Your task to perform on an android device: change notification settings in the gmail app Image 0: 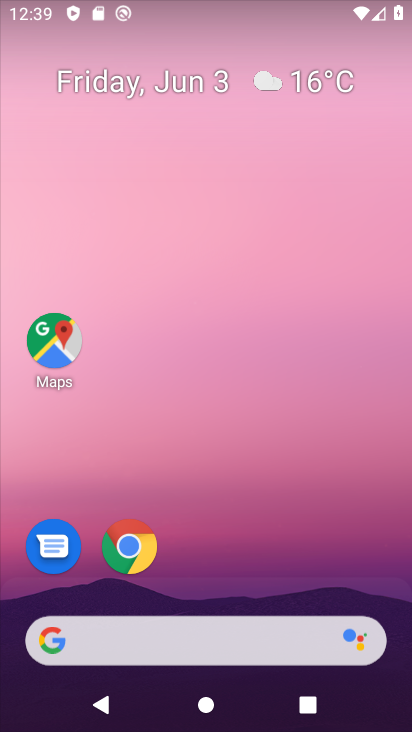
Step 0: drag from (226, 503) to (292, 192)
Your task to perform on an android device: change notification settings in the gmail app Image 1: 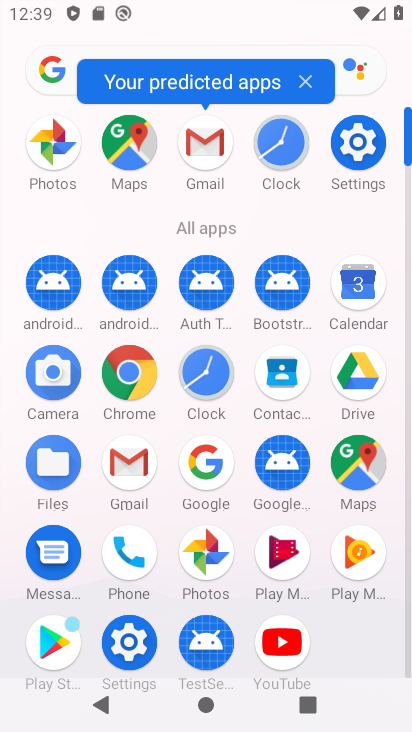
Step 1: click (127, 490)
Your task to perform on an android device: change notification settings in the gmail app Image 2: 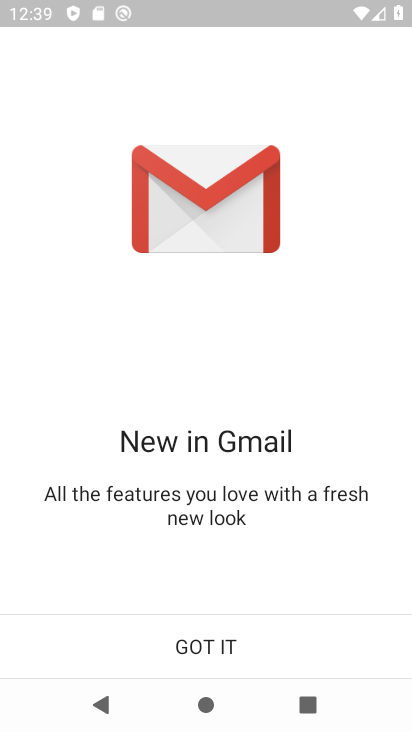
Step 2: click (220, 648)
Your task to perform on an android device: change notification settings in the gmail app Image 3: 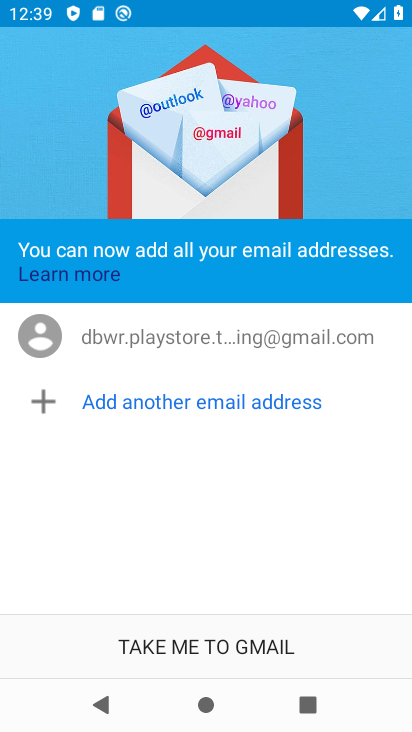
Step 3: click (272, 657)
Your task to perform on an android device: change notification settings in the gmail app Image 4: 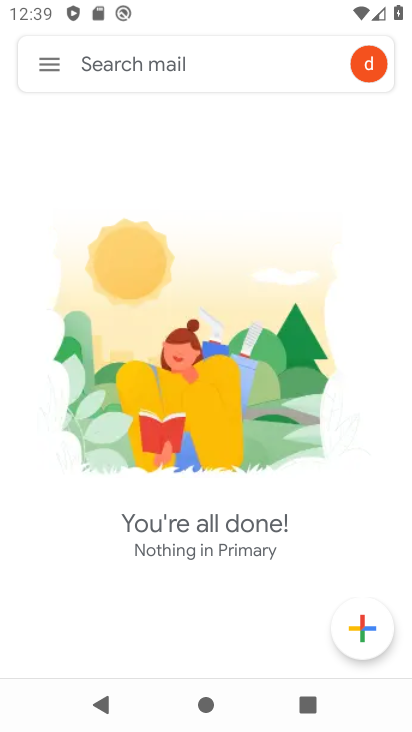
Step 4: click (51, 80)
Your task to perform on an android device: change notification settings in the gmail app Image 5: 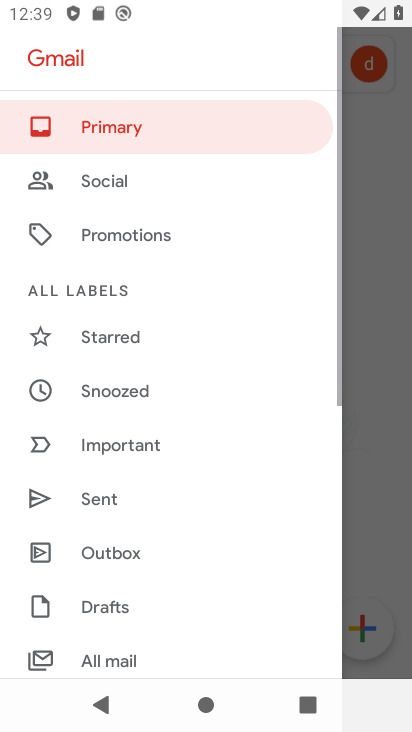
Step 5: drag from (125, 575) to (198, 138)
Your task to perform on an android device: change notification settings in the gmail app Image 6: 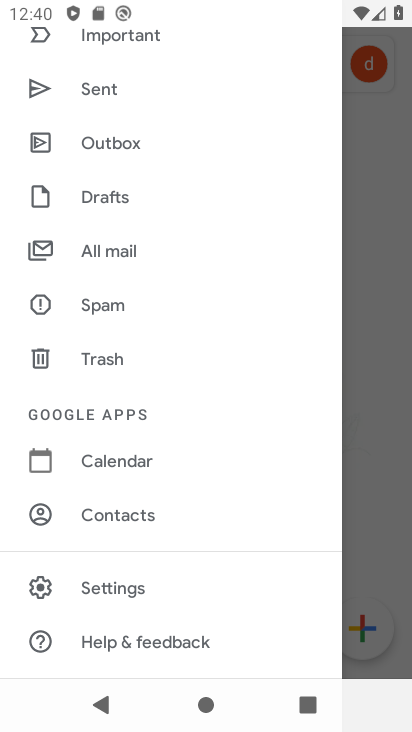
Step 6: click (146, 602)
Your task to perform on an android device: change notification settings in the gmail app Image 7: 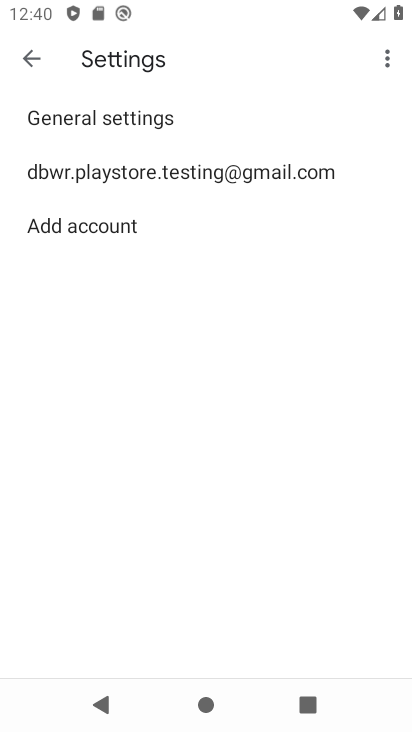
Step 7: click (268, 182)
Your task to perform on an android device: change notification settings in the gmail app Image 8: 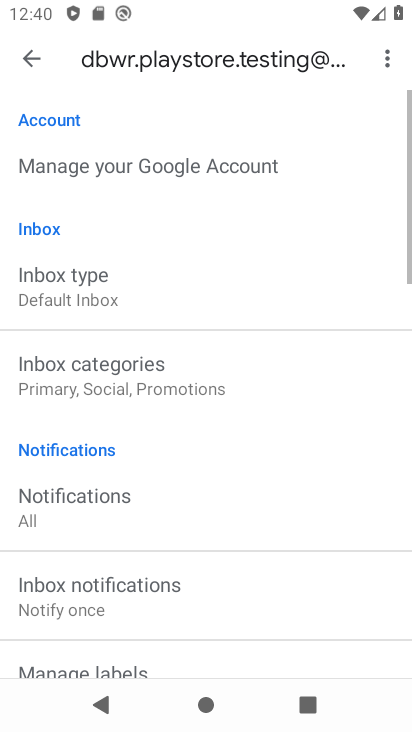
Step 8: drag from (202, 576) to (312, 166)
Your task to perform on an android device: change notification settings in the gmail app Image 9: 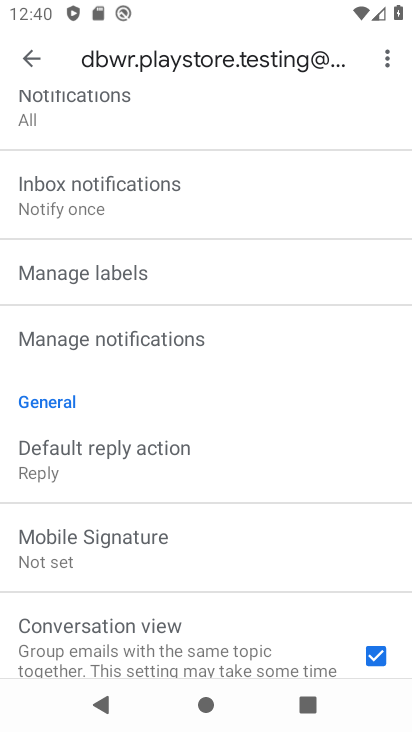
Step 9: click (213, 354)
Your task to perform on an android device: change notification settings in the gmail app Image 10: 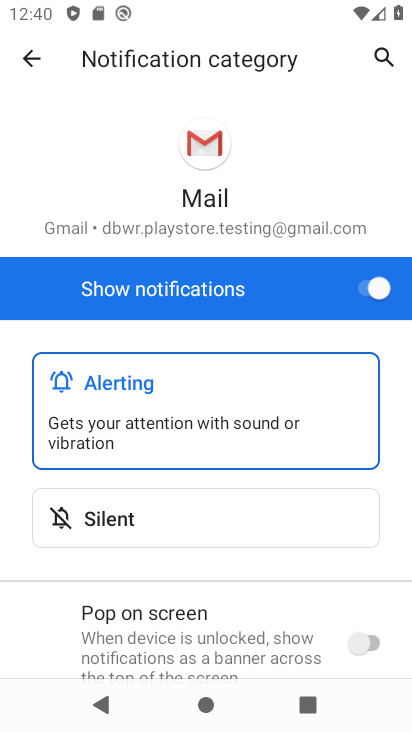
Step 10: drag from (225, 604) to (329, 280)
Your task to perform on an android device: change notification settings in the gmail app Image 11: 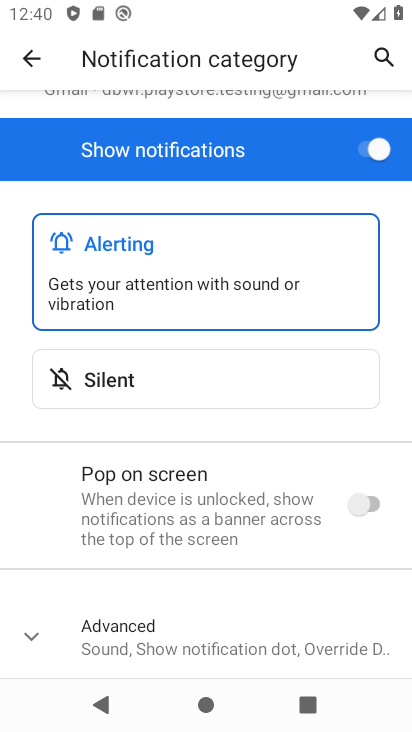
Step 11: click (176, 395)
Your task to perform on an android device: change notification settings in the gmail app Image 12: 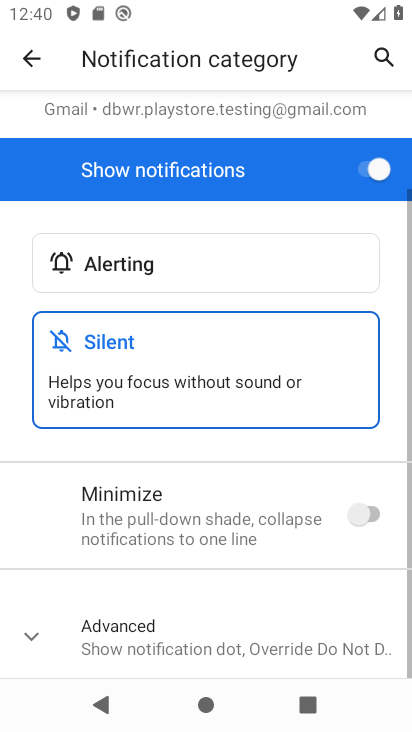
Step 12: click (388, 515)
Your task to perform on an android device: change notification settings in the gmail app Image 13: 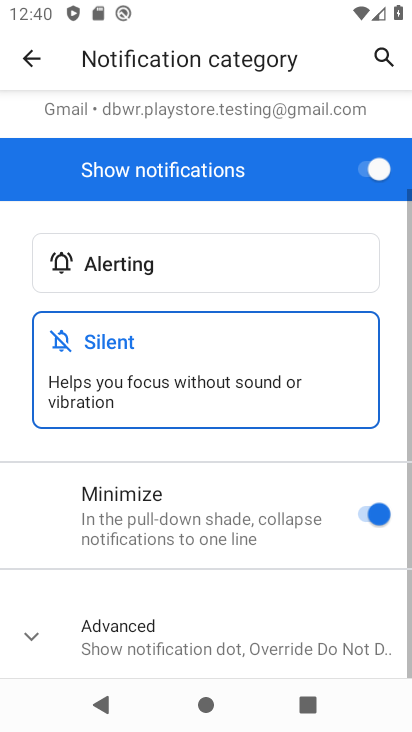
Step 13: click (304, 641)
Your task to perform on an android device: change notification settings in the gmail app Image 14: 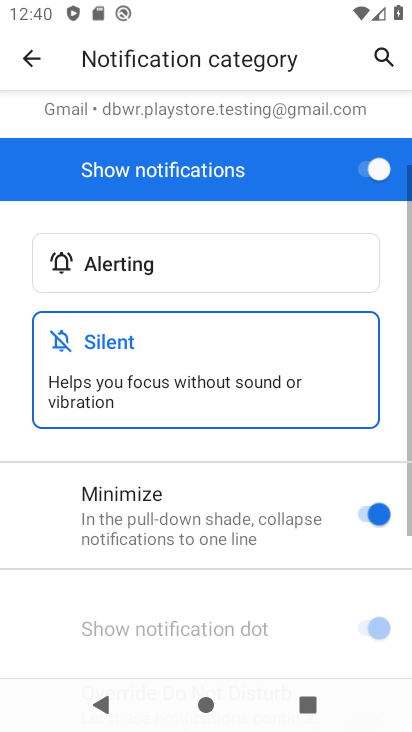
Step 14: drag from (302, 640) to (370, 179)
Your task to perform on an android device: change notification settings in the gmail app Image 15: 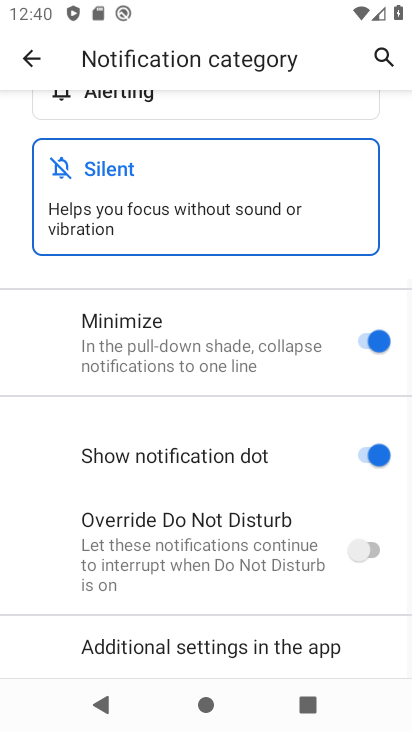
Step 15: click (371, 452)
Your task to perform on an android device: change notification settings in the gmail app Image 16: 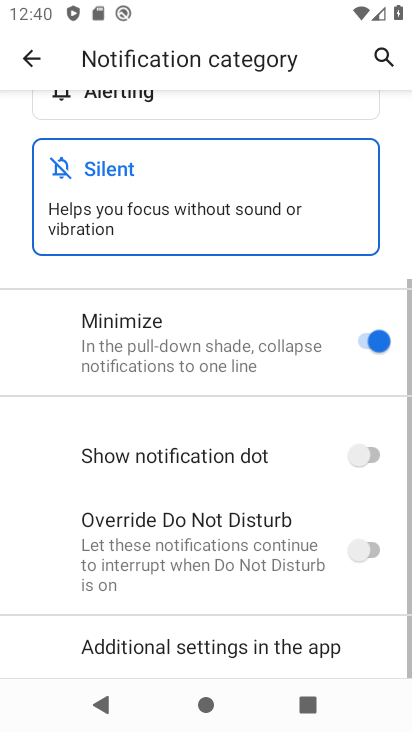
Step 16: click (373, 541)
Your task to perform on an android device: change notification settings in the gmail app Image 17: 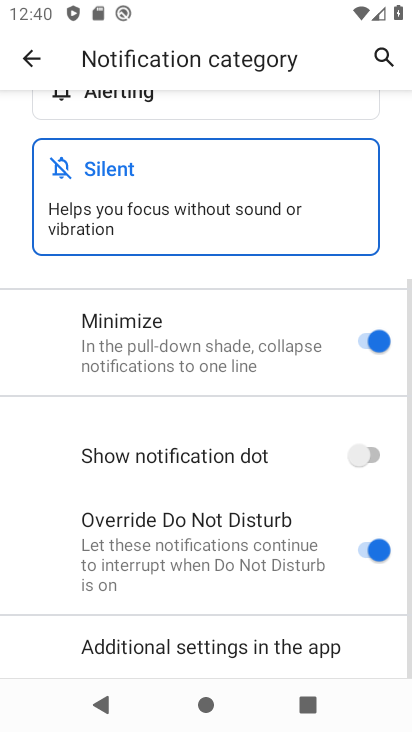
Step 17: task complete